Your task to perform on an android device: Go to calendar. Show me events next week Image 0: 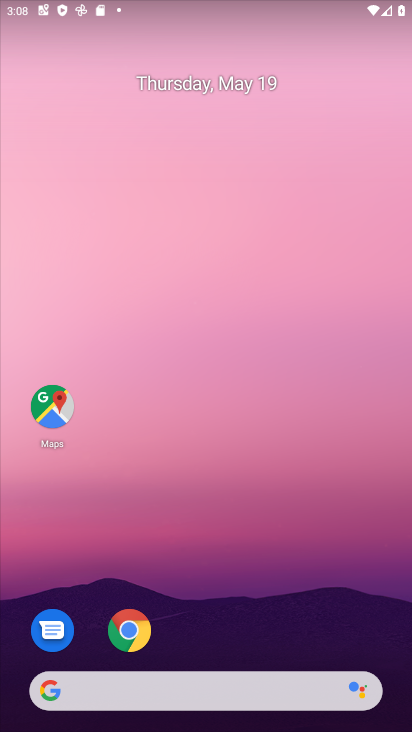
Step 0: drag from (390, 643) to (344, 104)
Your task to perform on an android device: Go to calendar. Show me events next week Image 1: 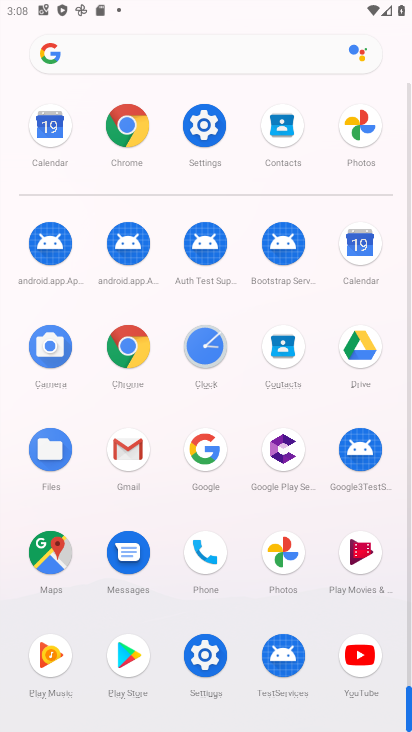
Step 1: click (356, 242)
Your task to perform on an android device: Go to calendar. Show me events next week Image 2: 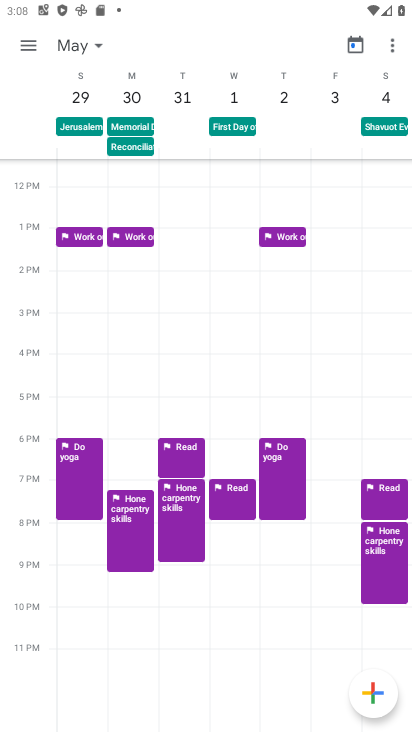
Step 2: click (28, 38)
Your task to perform on an android device: Go to calendar. Show me events next week Image 3: 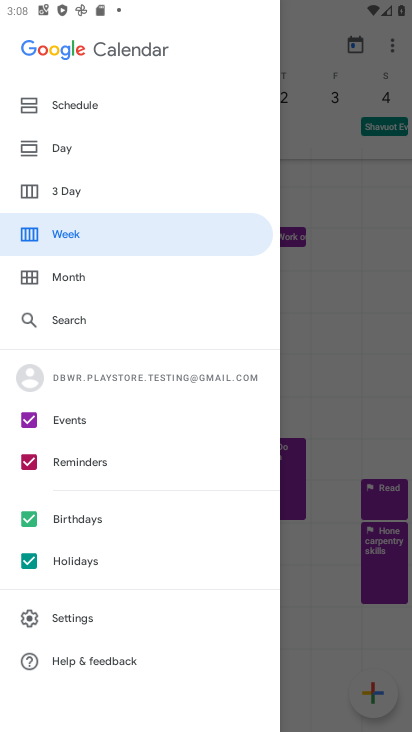
Step 3: click (79, 225)
Your task to perform on an android device: Go to calendar. Show me events next week Image 4: 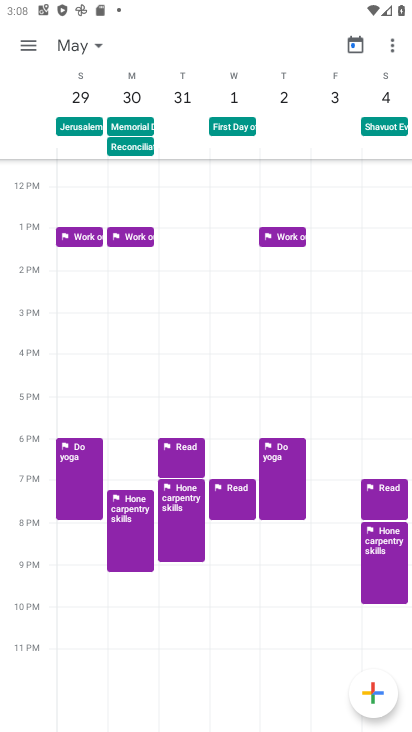
Step 4: task complete